Your task to perform on an android device: open device folders in google photos Image 0: 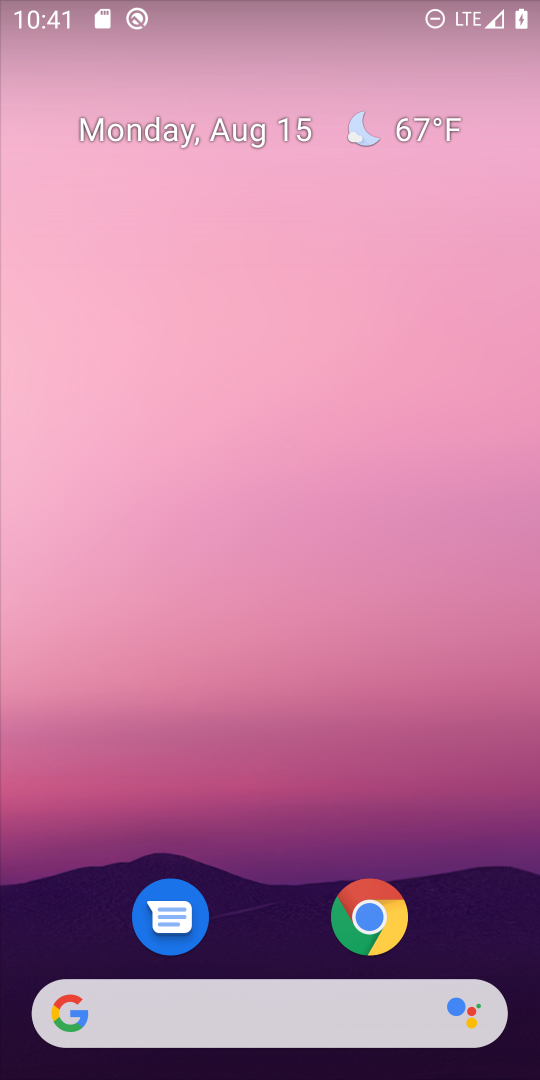
Step 0: drag from (227, 774) to (373, 9)
Your task to perform on an android device: open device folders in google photos Image 1: 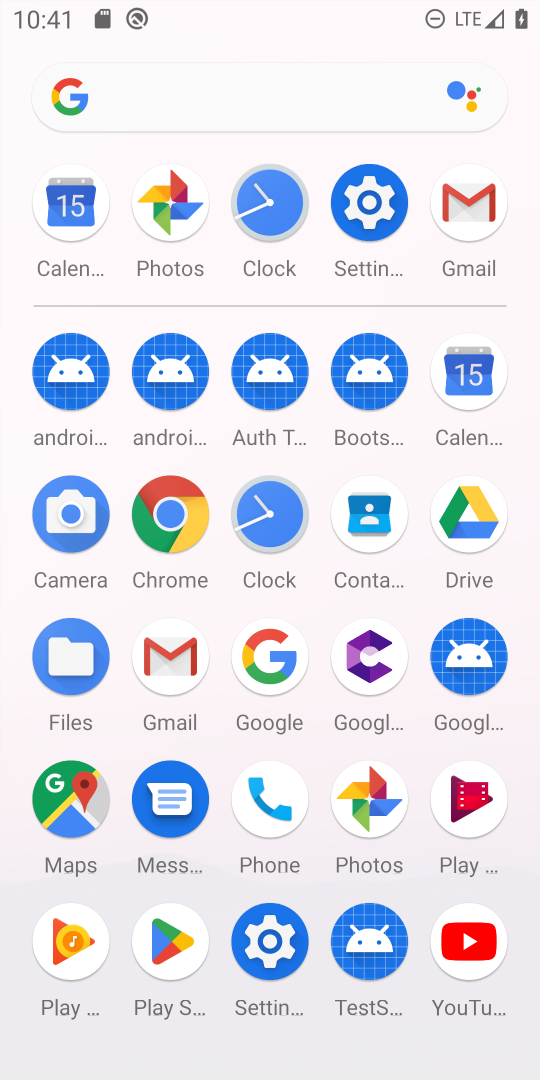
Step 1: click (171, 201)
Your task to perform on an android device: open device folders in google photos Image 2: 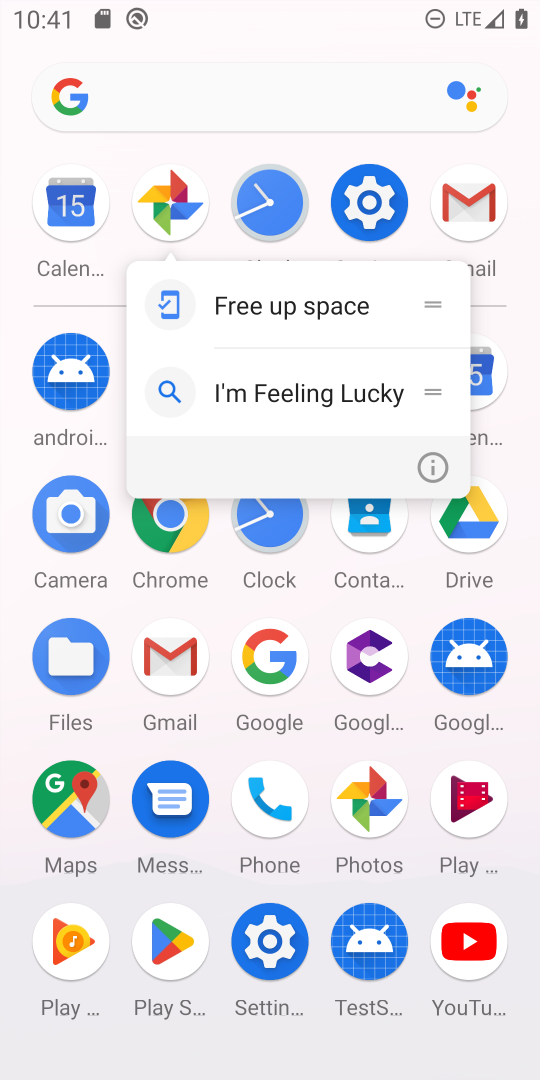
Step 2: click (172, 201)
Your task to perform on an android device: open device folders in google photos Image 3: 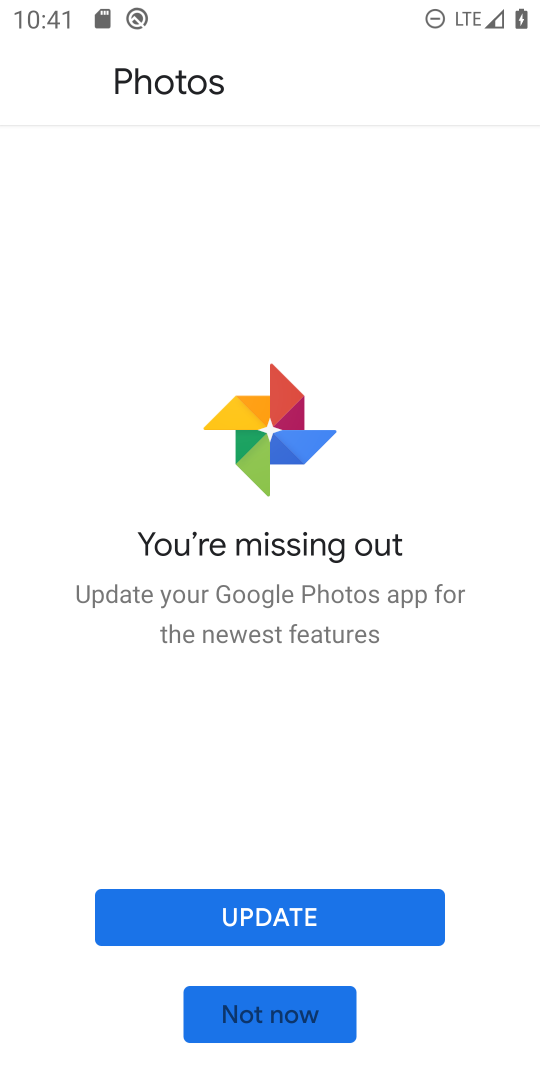
Step 3: click (318, 1016)
Your task to perform on an android device: open device folders in google photos Image 4: 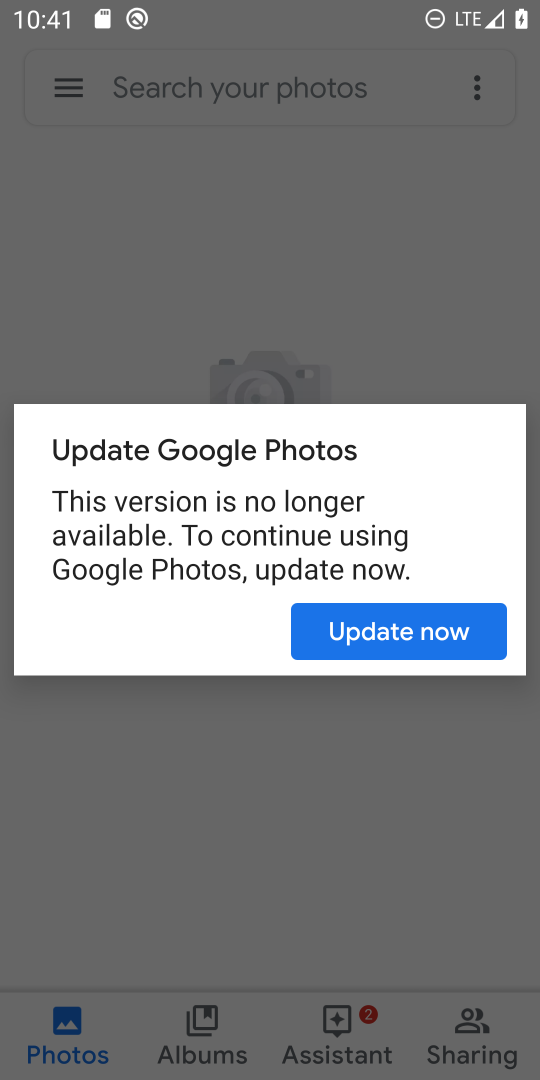
Step 4: click (457, 639)
Your task to perform on an android device: open device folders in google photos Image 5: 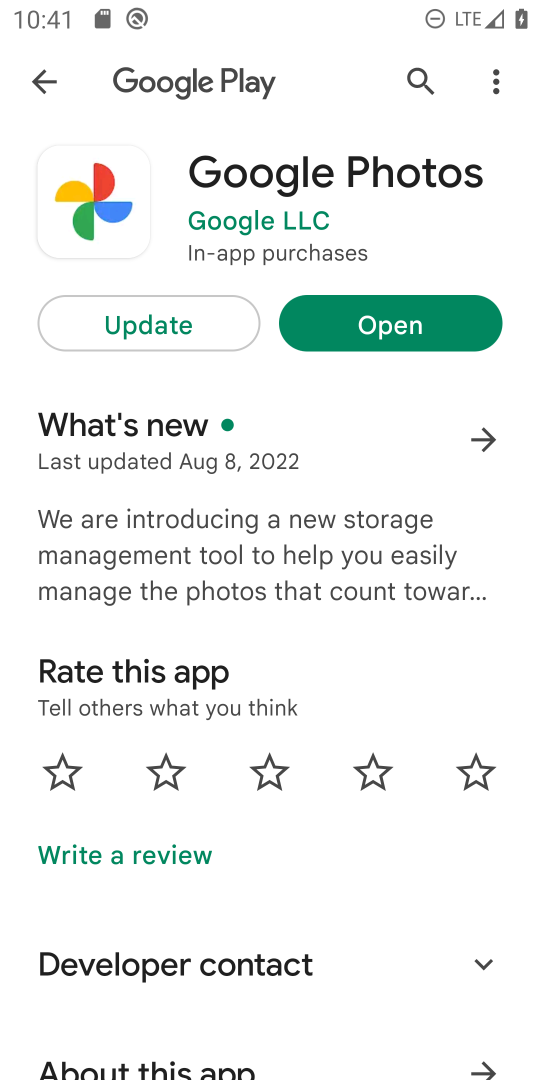
Step 5: click (347, 315)
Your task to perform on an android device: open device folders in google photos Image 6: 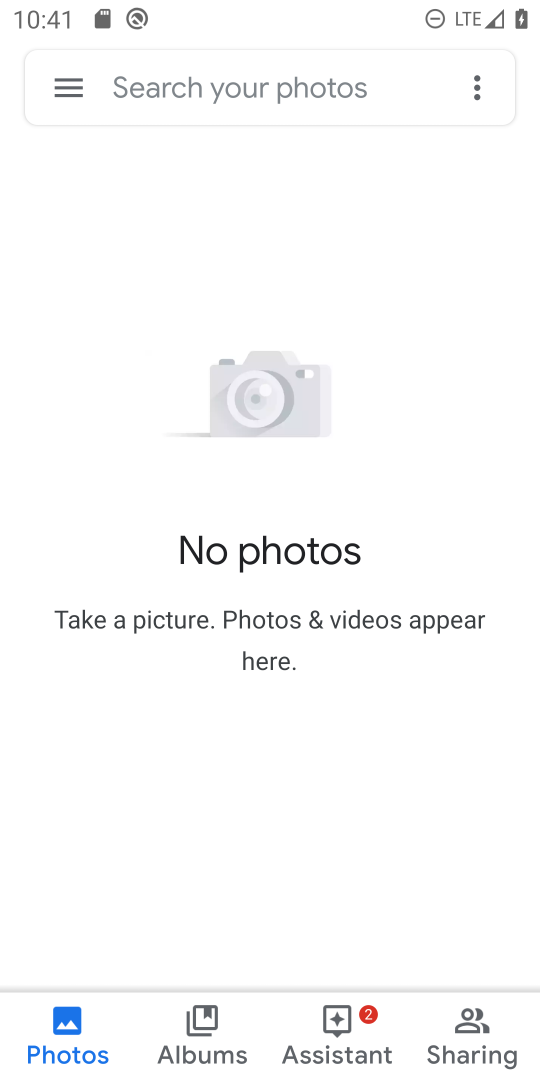
Step 6: click (72, 91)
Your task to perform on an android device: open device folders in google photos Image 7: 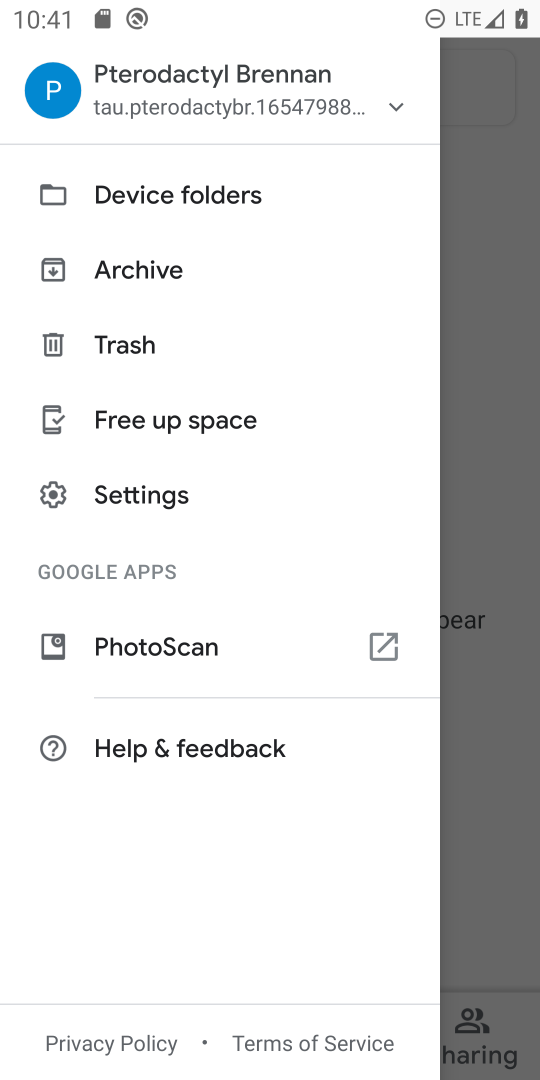
Step 7: click (125, 198)
Your task to perform on an android device: open device folders in google photos Image 8: 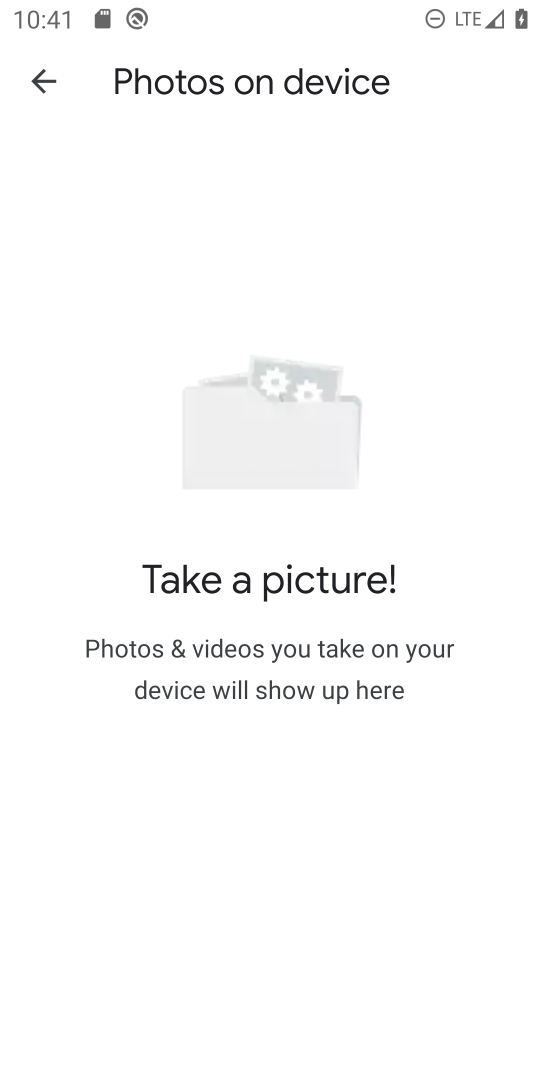
Step 8: task complete